Your task to perform on an android device: turn on location history Image 0: 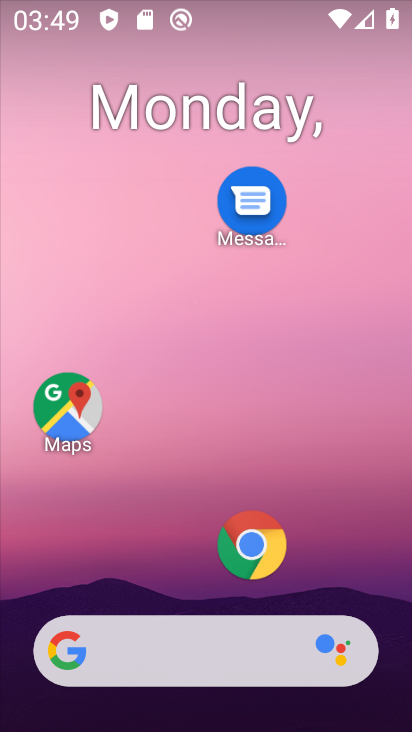
Step 0: drag from (129, 538) to (239, 53)
Your task to perform on an android device: turn on location history Image 1: 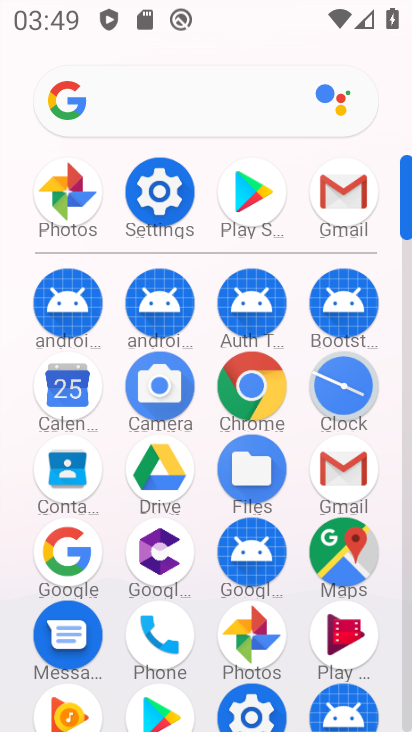
Step 1: click (158, 189)
Your task to perform on an android device: turn on location history Image 2: 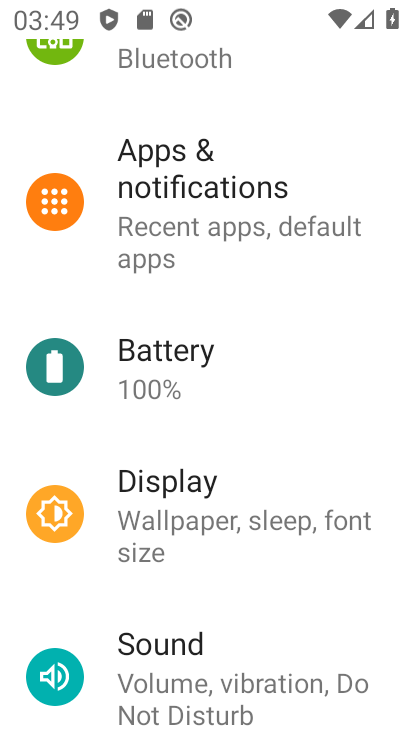
Step 2: drag from (212, 498) to (302, 100)
Your task to perform on an android device: turn on location history Image 3: 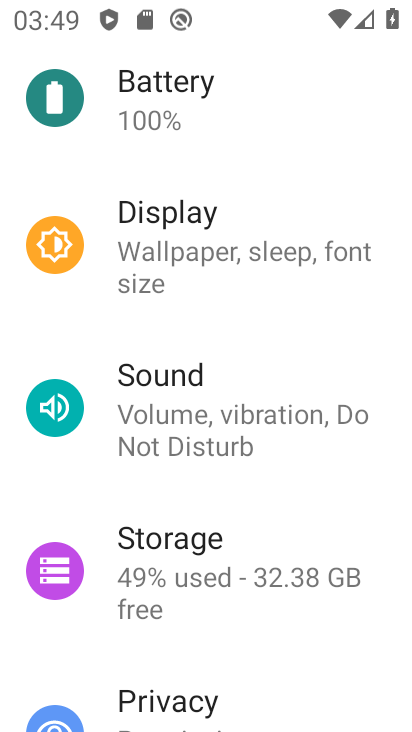
Step 3: drag from (178, 681) to (305, 137)
Your task to perform on an android device: turn on location history Image 4: 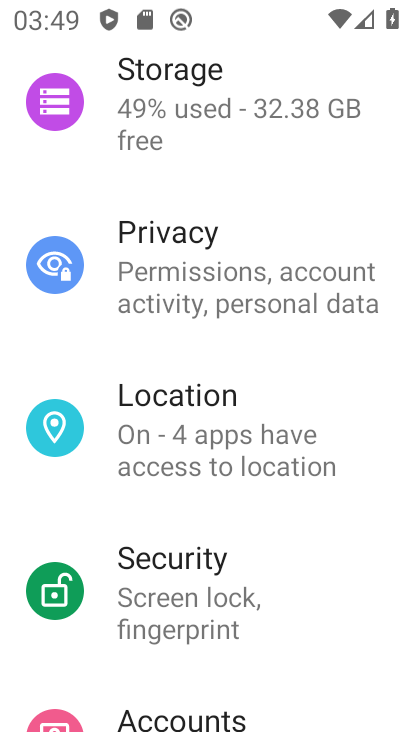
Step 4: click (176, 436)
Your task to perform on an android device: turn on location history Image 5: 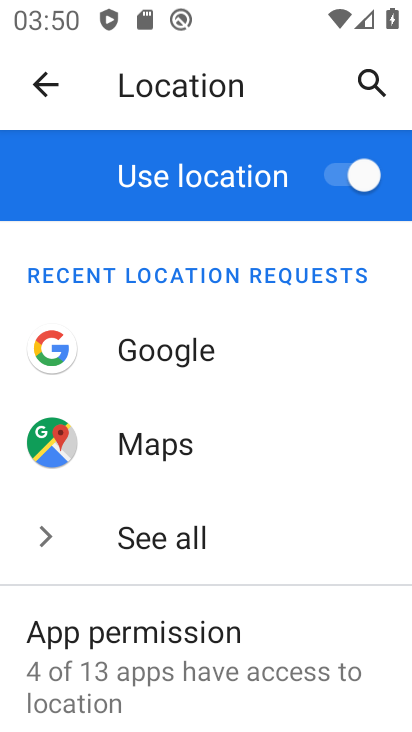
Step 5: drag from (171, 713) to (314, 172)
Your task to perform on an android device: turn on location history Image 6: 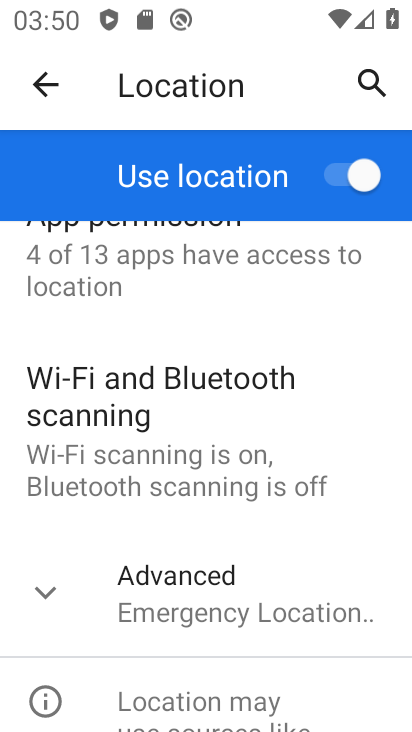
Step 6: click (221, 588)
Your task to perform on an android device: turn on location history Image 7: 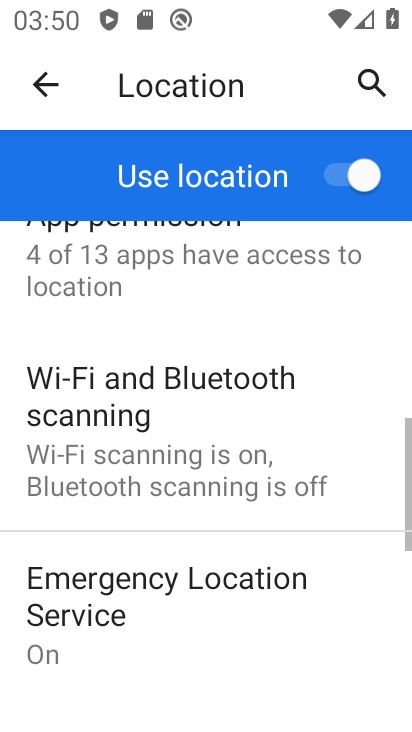
Step 7: drag from (178, 623) to (278, 200)
Your task to perform on an android device: turn on location history Image 8: 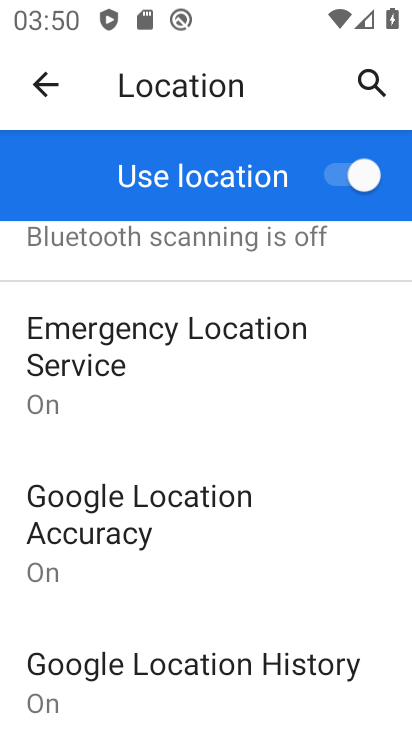
Step 8: click (154, 667)
Your task to perform on an android device: turn on location history Image 9: 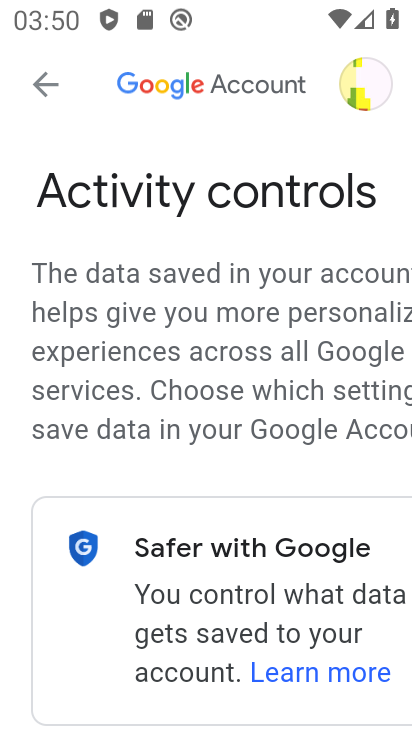
Step 9: task complete